Your task to perform on an android device: Show me popular games on the Play Store Image 0: 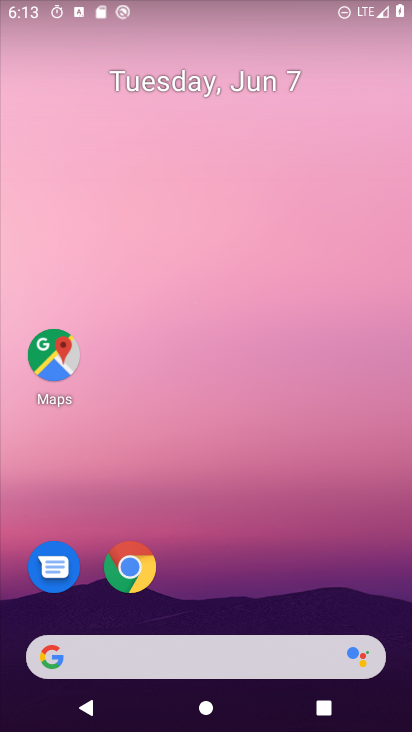
Step 0: drag from (247, 616) to (339, 3)
Your task to perform on an android device: Show me popular games on the Play Store Image 1: 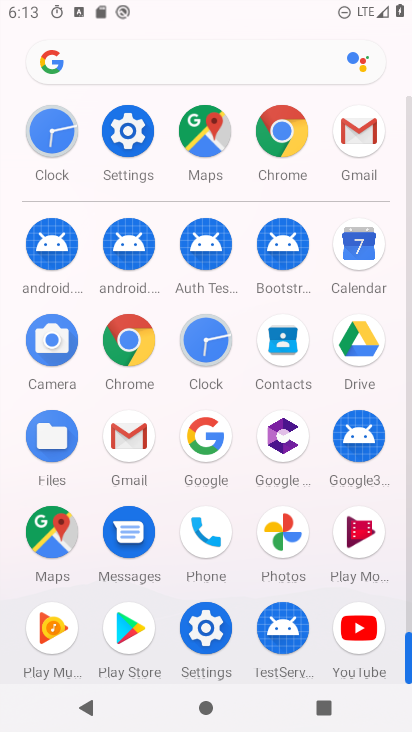
Step 1: click (123, 649)
Your task to perform on an android device: Show me popular games on the Play Store Image 2: 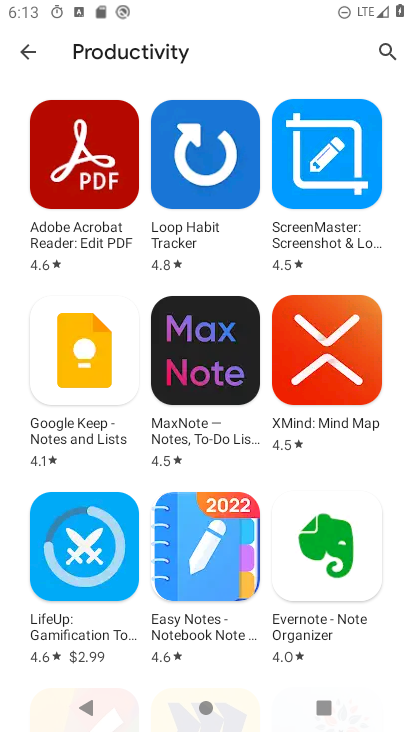
Step 2: press back button
Your task to perform on an android device: Show me popular games on the Play Store Image 3: 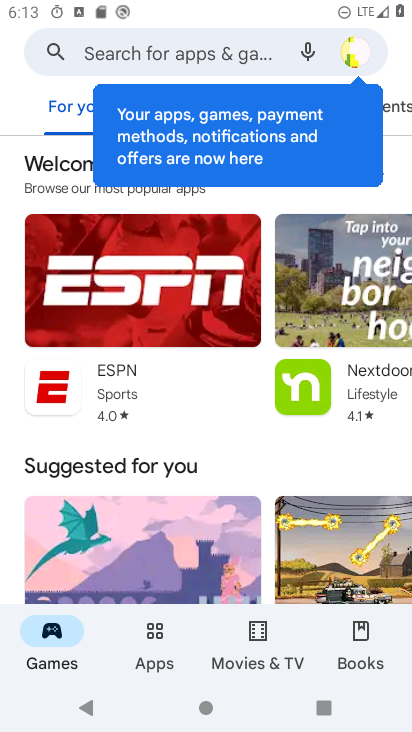
Step 3: drag from (227, 551) to (266, 178)
Your task to perform on an android device: Show me popular games on the Play Store Image 4: 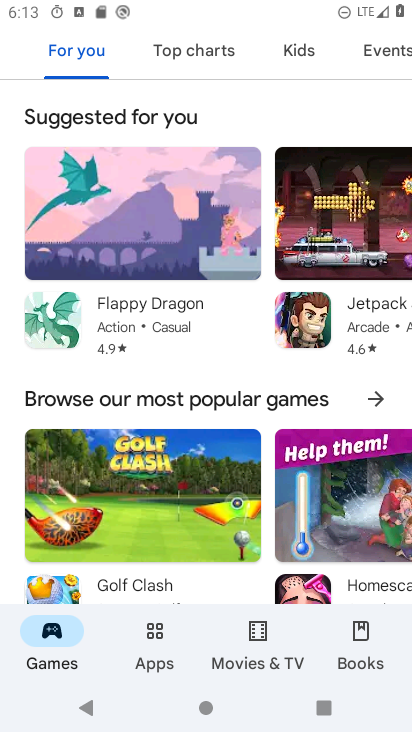
Step 4: click (369, 394)
Your task to perform on an android device: Show me popular games on the Play Store Image 5: 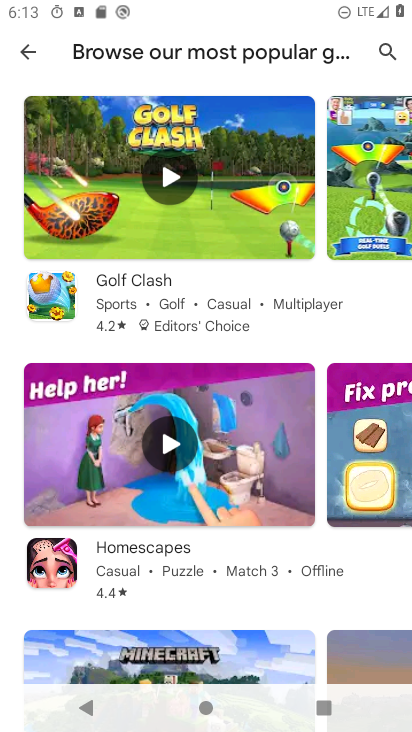
Step 5: task complete